Your task to perform on an android device: Show me popular games on the Play Store Image 0: 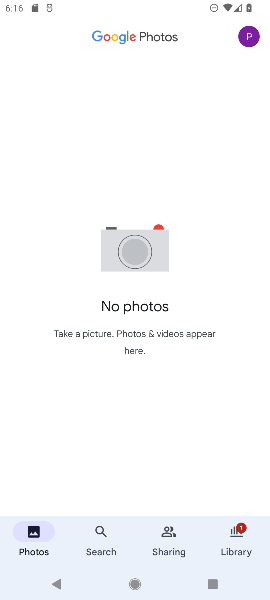
Step 0: press home button
Your task to perform on an android device: Show me popular games on the Play Store Image 1: 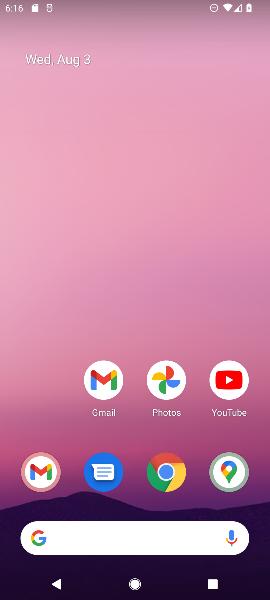
Step 1: drag from (236, 505) to (111, 83)
Your task to perform on an android device: Show me popular games on the Play Store Image 2: 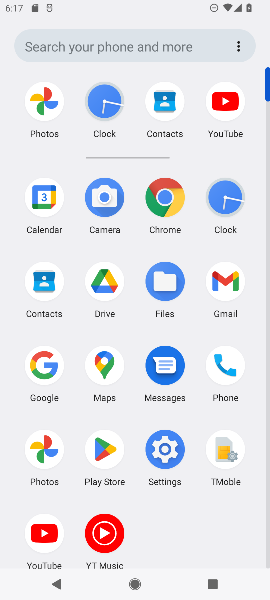
Step 2: click (98, 462)
Your task to perform on an android device: Show me popular games on the Play Store Image 3: 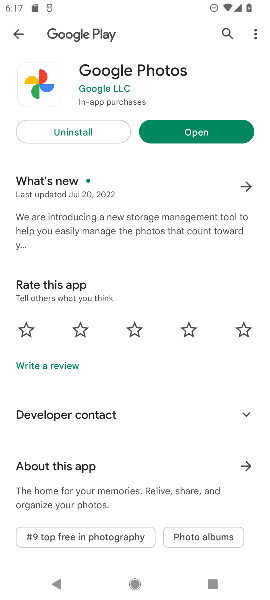
Step 3: press back button
Your task to perform on an android device: Show me popular games on the Play Store Image 4: 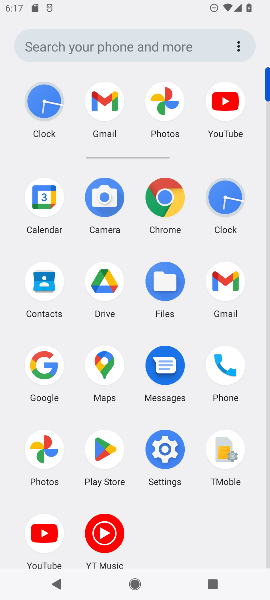
Step 4: click (94, 449)
Your task to perform on an android device: Show me popular games on the Play Store Image 5: 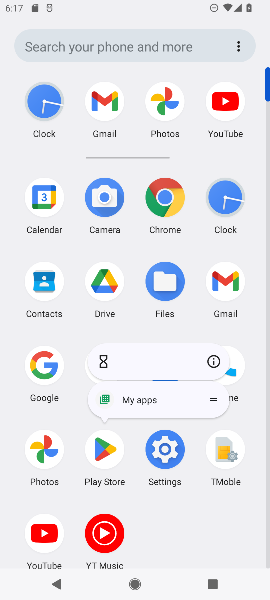
Step 5: click (98, 470)
Your task to perform on an android device: Show me popular games on the Play Store Image 6: 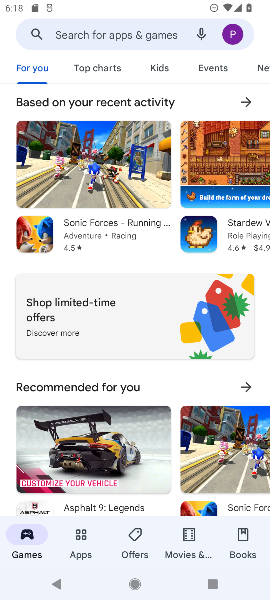
Step 6: click (123, 37)
Your task to perform on an android device: Show me popular games on the Play Store Image 7: 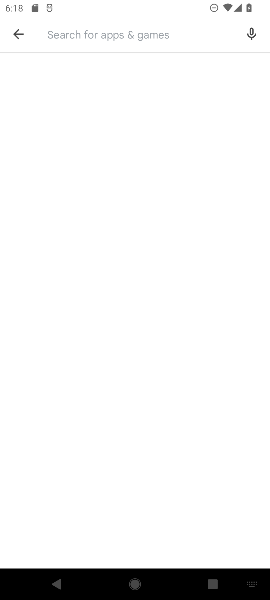
Step 7: type "popular games"
Your task to perform on an android device: Show me popular games on the Play Store Image 8: 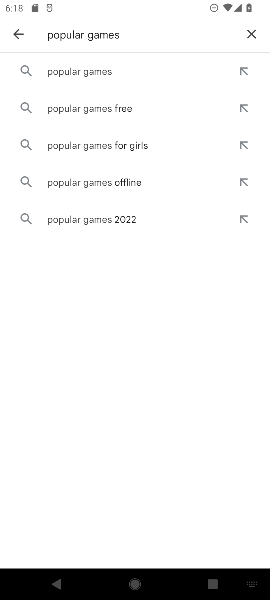
Step 8: click (88, 77)
Your task to perform on an android device: Show me popular games on the Play Store Image 9: 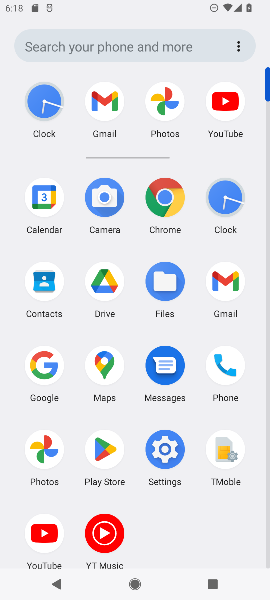
Step 9: task complete